Your task to perform on an android device: uninstall "Google Duo" Image 0: 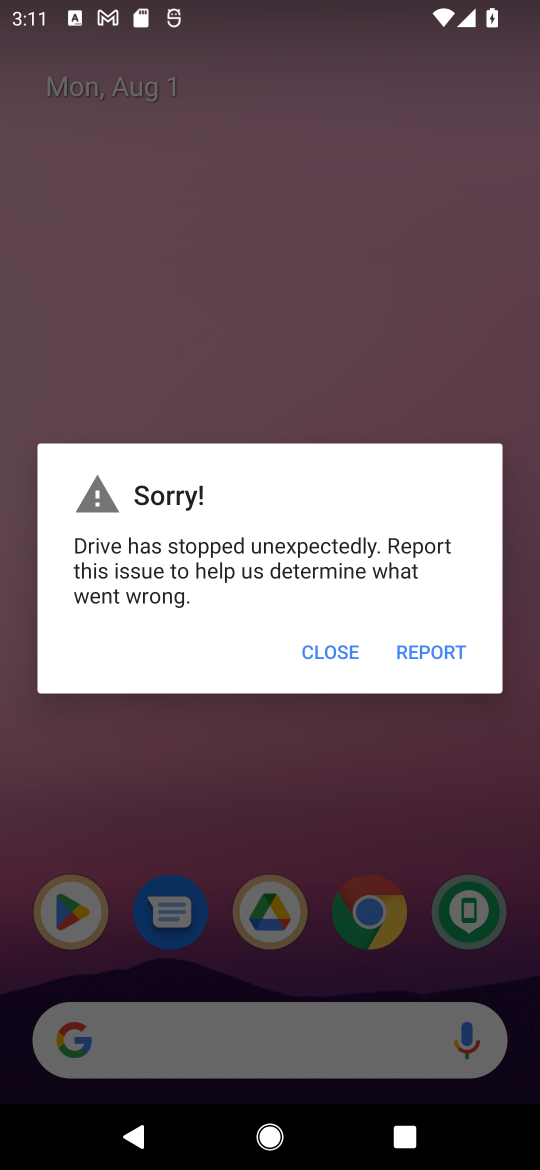
Step 0: press home button
Your task to perform on an android device: uninstall "Google Duo" Image 1: 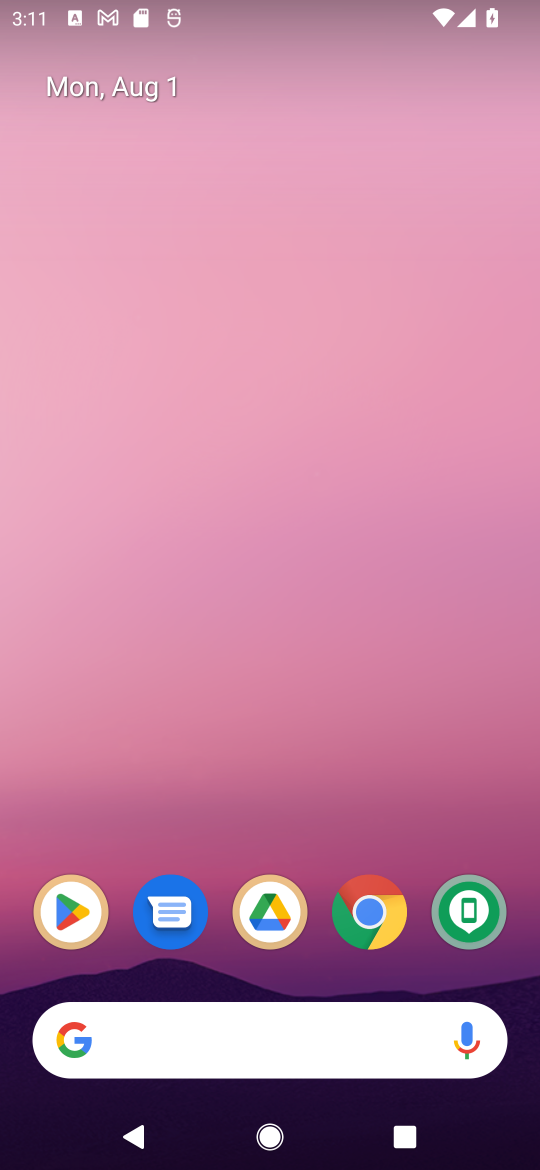
Step 1: click (64, 934)
Your task to perform on an android device: uninstall "Google Duo" Image 2: 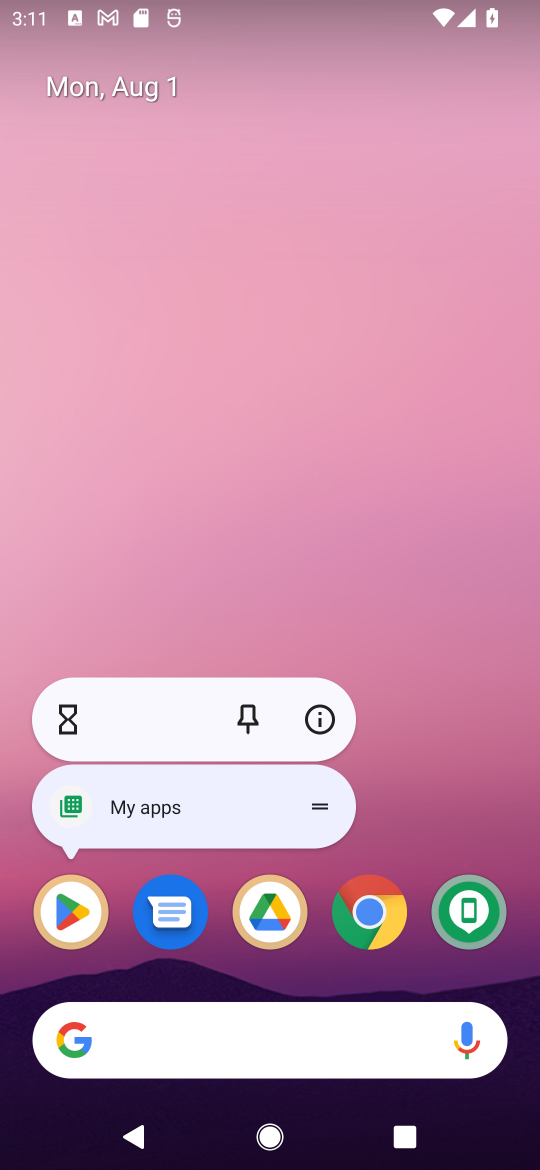
Step 2: click (70, 913)
Your task to perform on an android device: uninstall "Google Duo" Image 3: 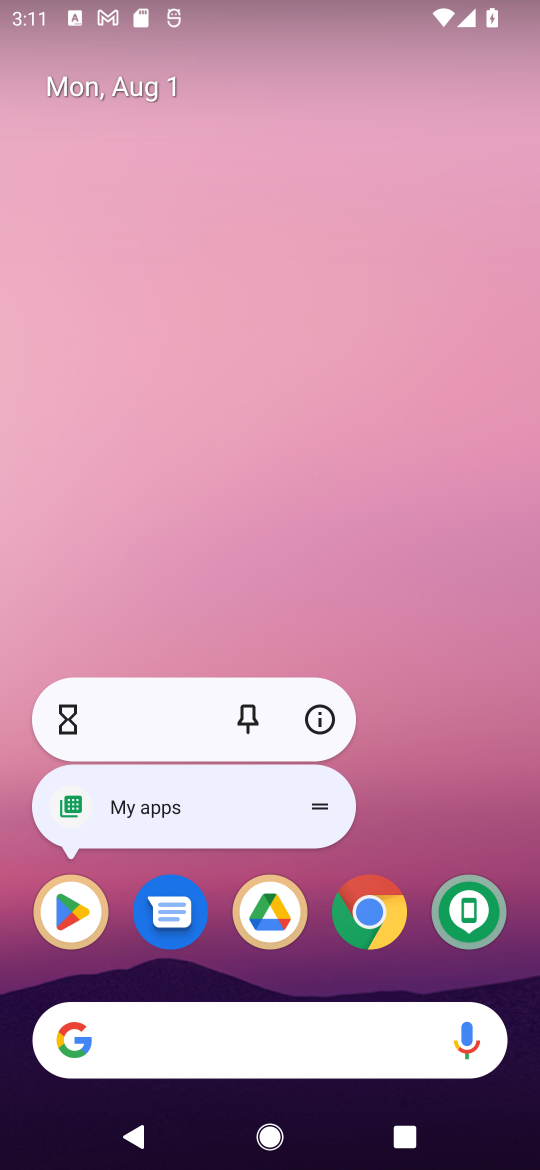
Step 3: click (70, 913)
Your task to perform on an android device: uninstall "Google Duo" Image 4: 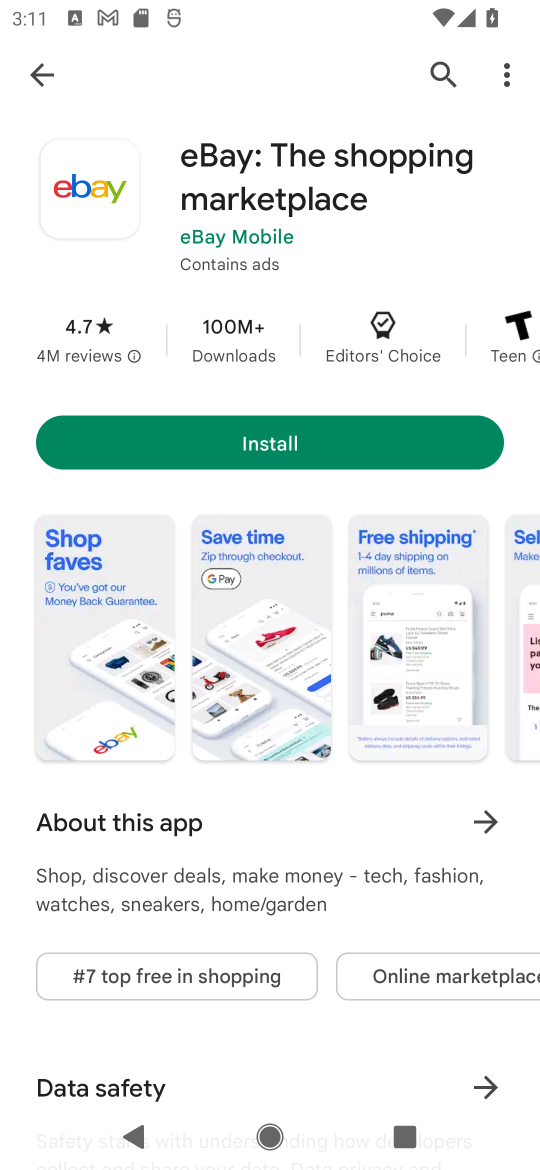
Step 4: click (431, 66)
Your task to perform on an android device: uninstall "Google Duo" Image 5: 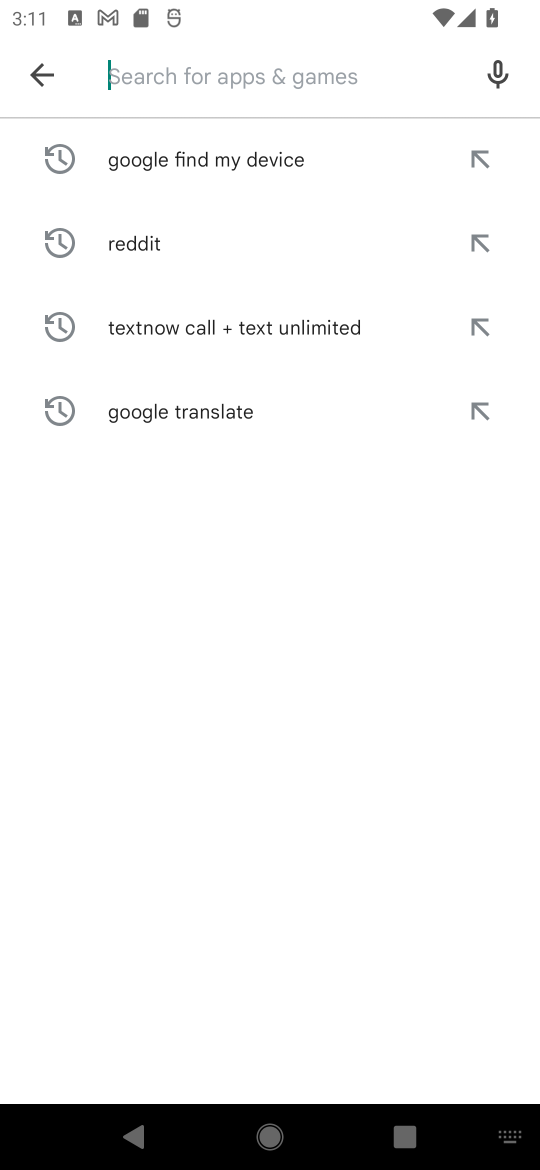
Step 5: click (377, 85)
Your task to perform on an android device: uninstall "Google Duo" Image 6: 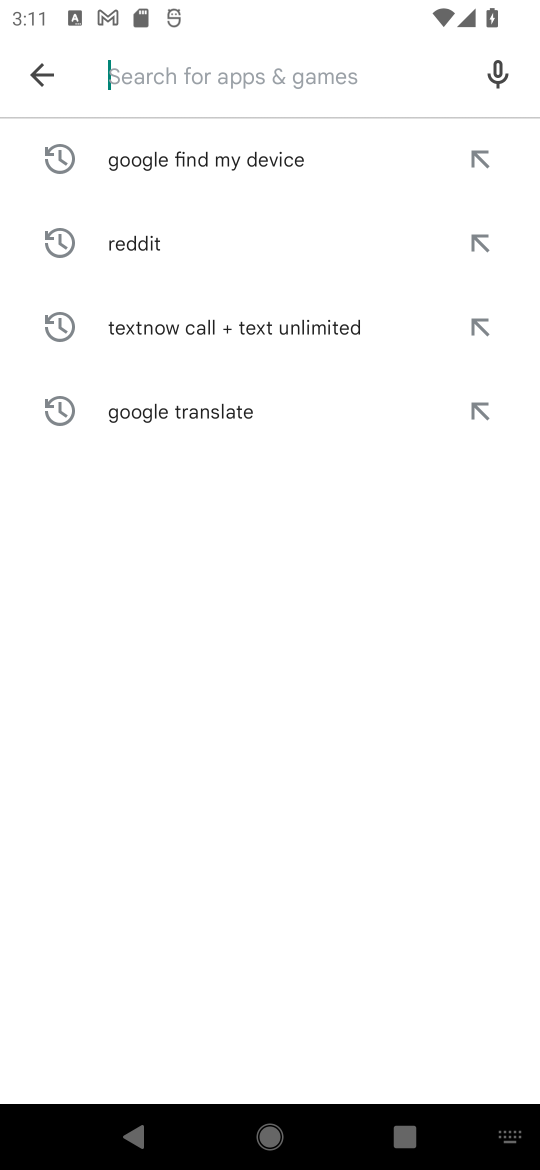
Step 6: type "Google Duo"
Your task to perform on an android device: uninstall "Google Duo" Image 7: 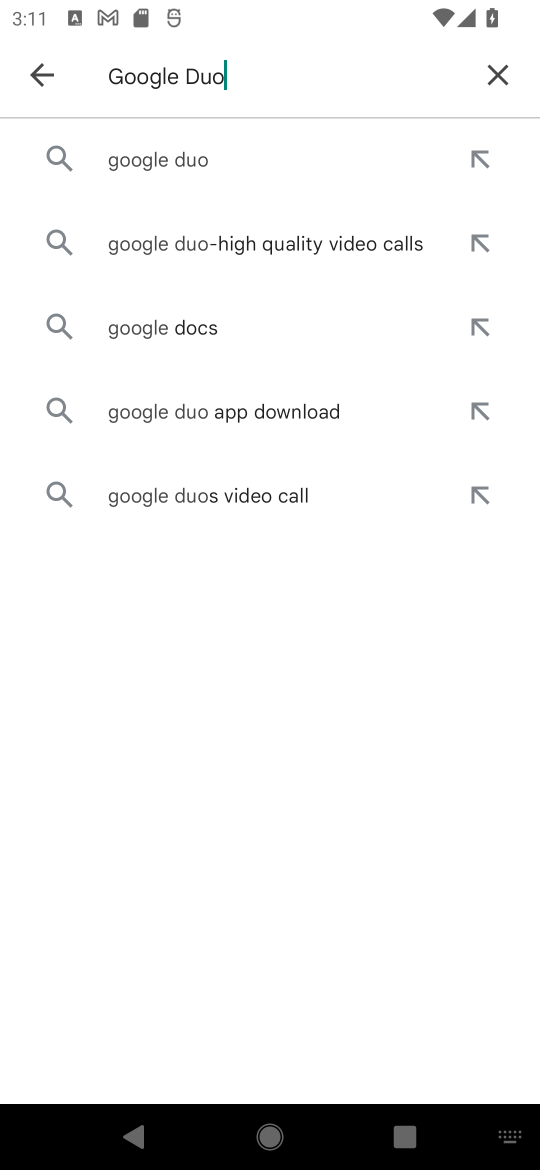
Step 7: click (161, 178)
Your task to perform on an android device: uninstall "Google Duo" Image 8: 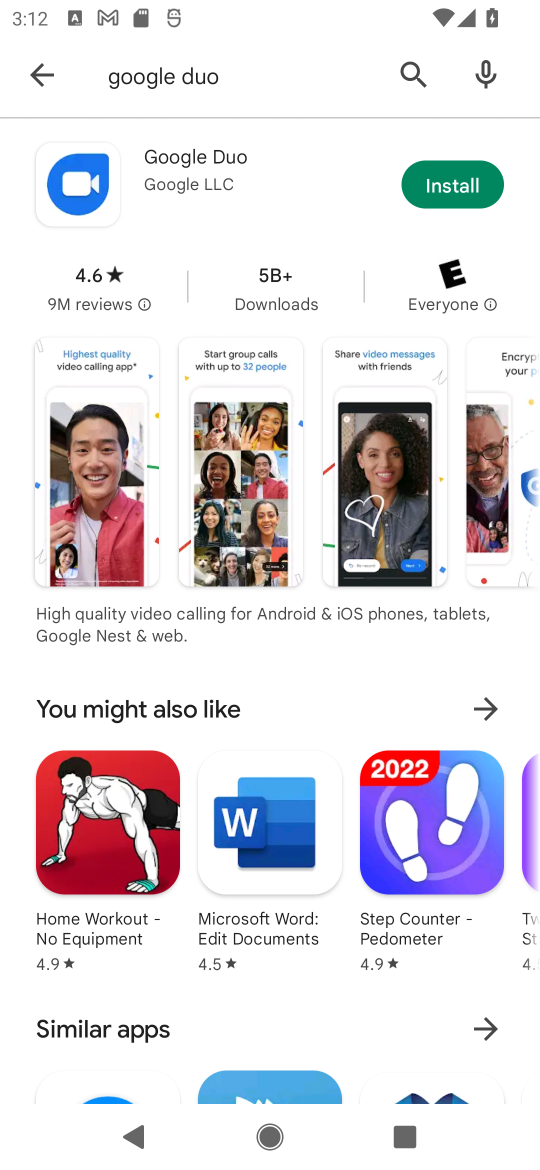
Step 8: task complete